Your task to perform on an android device: check out phone information Image 0: 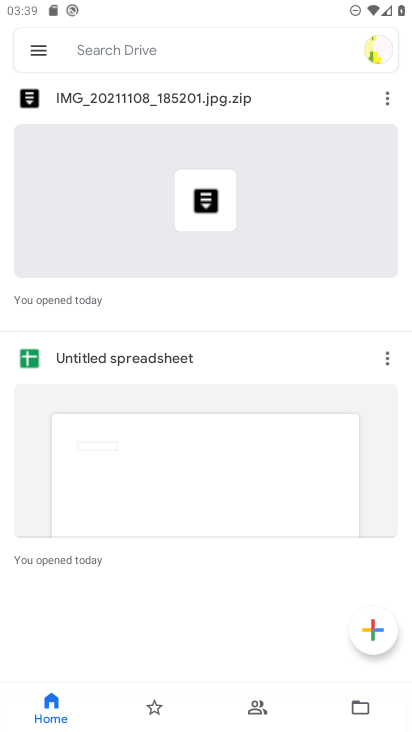
Step 0: press home button
Your task to perform on an android device: check out phone information Image 1: 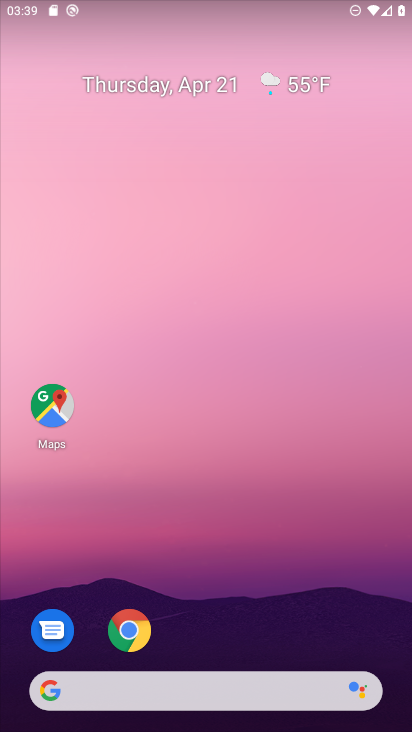
Step 1: drag from (196, 574) to (280, 15)
Your task to perform on an android device: check out phone information Image 2: 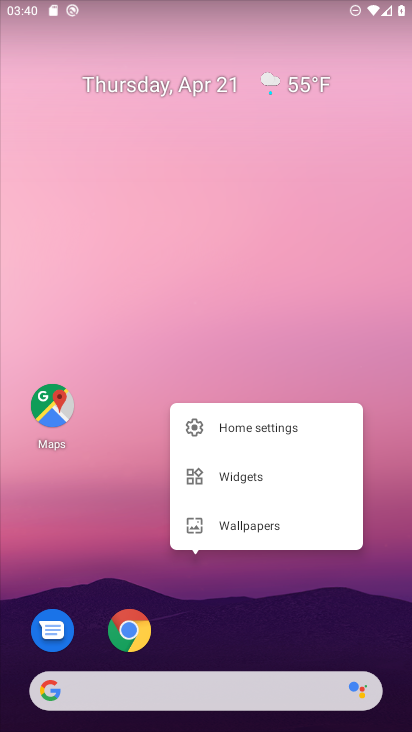
Step 2: drag from (203, 614) to (220, 20)
Your task to perform on an android device: check out phone information Image 3: 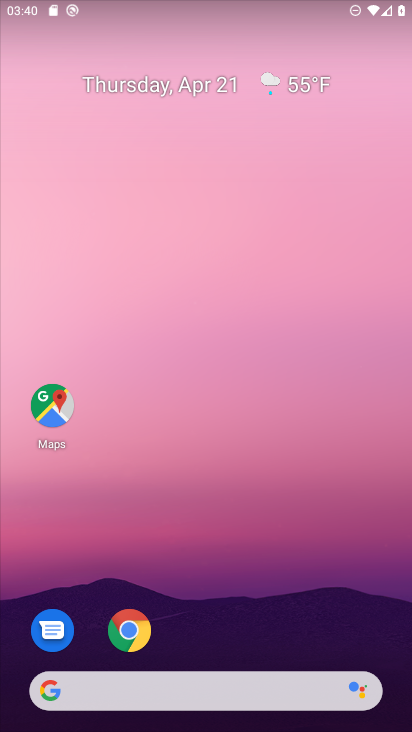
Step 3: drag from (252, 632) to (281, 19)
Your task to perform on an android device: check out phone information Image 4: 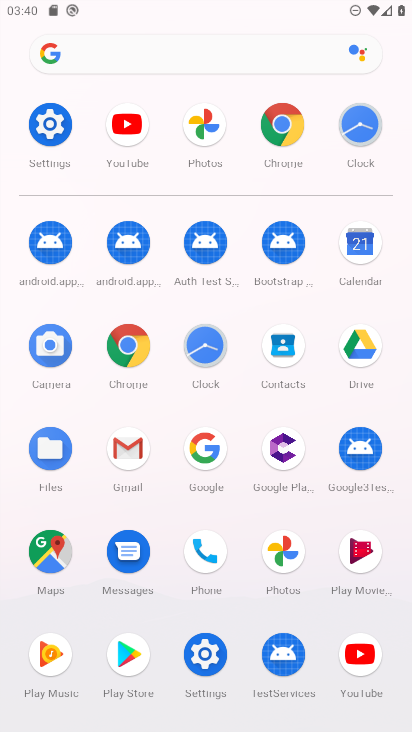
Step 4: click (38, 141)
Your task to perform on an android device: check out phone information Image 5: 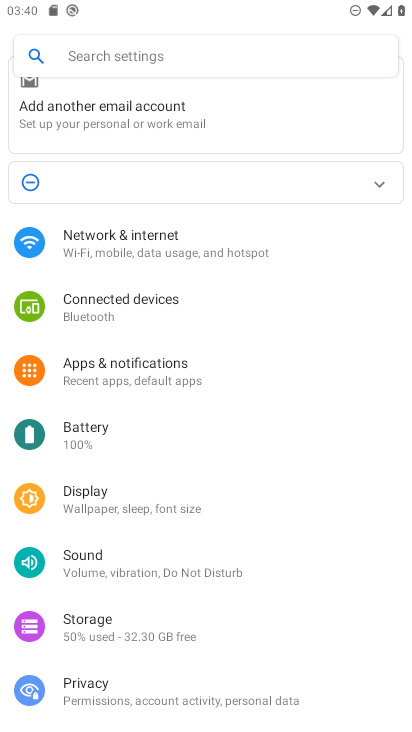
Step 5: drag from (205, 627) to (223, 37)
Your task to perform on an android device: check out phone information Image 6: 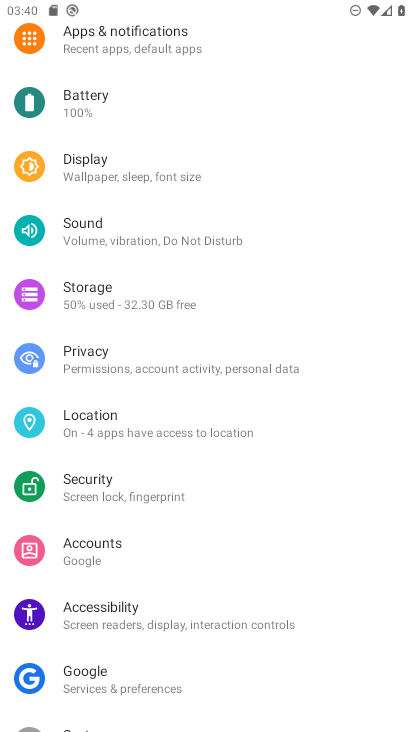
Step 6: drag from (241, 673) to (189, 350)
Your task to perform on an android device: check out phone information Image 7: 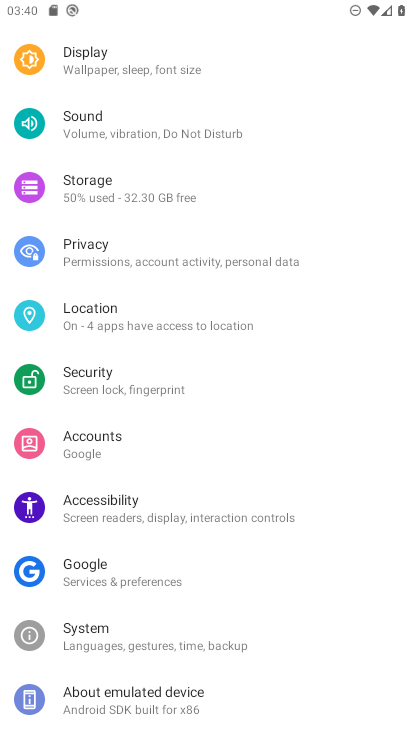
Step 7: click (144, 693)
Your task to perform on an android device: check out phone information Image 8: 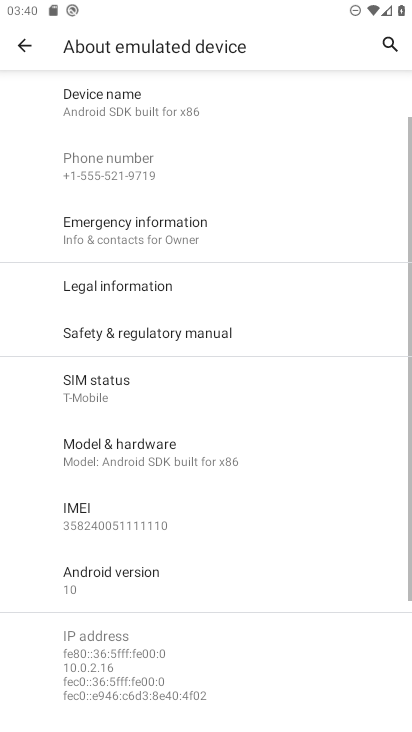
Step 8: task complete